Your task to perform on an android device: Open the web browser Image 0: 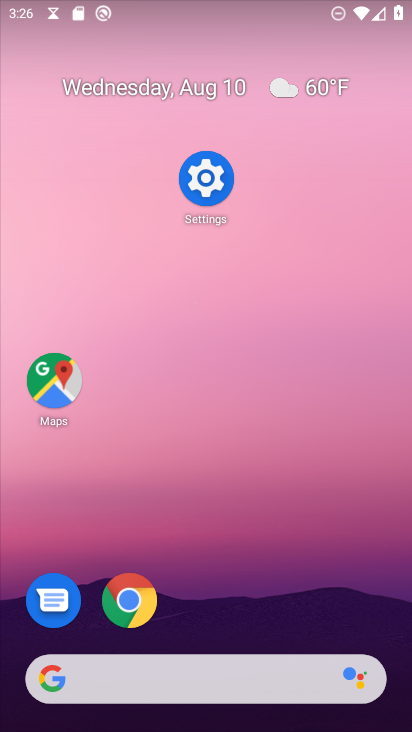
Step 0: press home button
Your task to perform on an android device: Open the web browser Image 1: 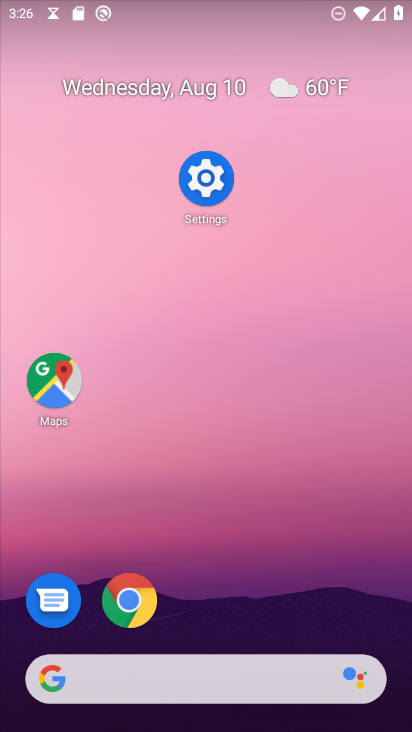
Step 1: click (41, 684)
Your task to perform on an android device: Open the web browser Image 2: 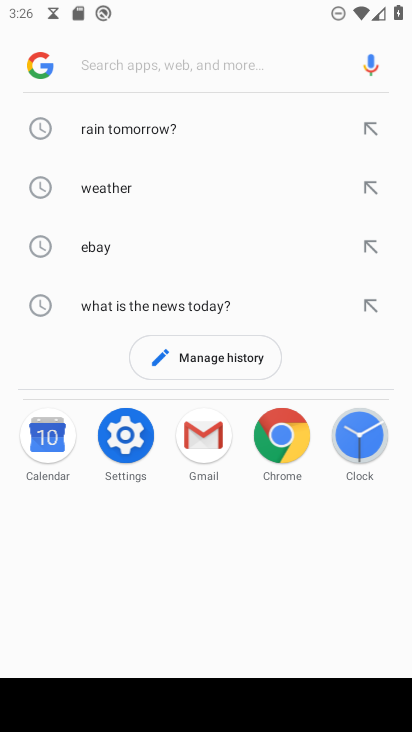
Step 2: task complete